Your task to perform on an android device: Open the stopwatch Image 0: 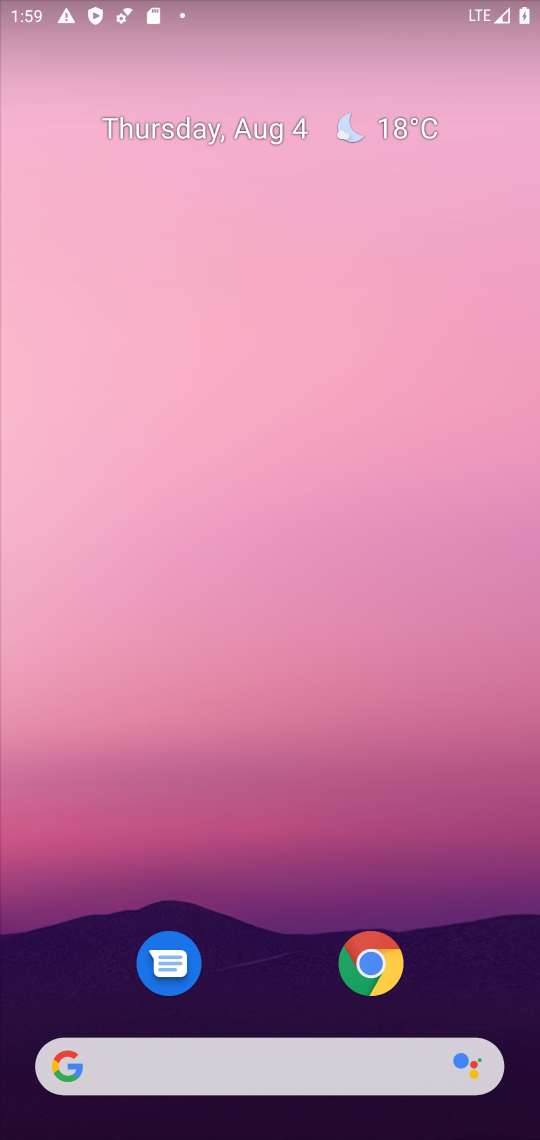
Step 0: drag from (283, 1065) to (296, 61)
Your task to perform on an android device: Open the stopwatch Image 1: 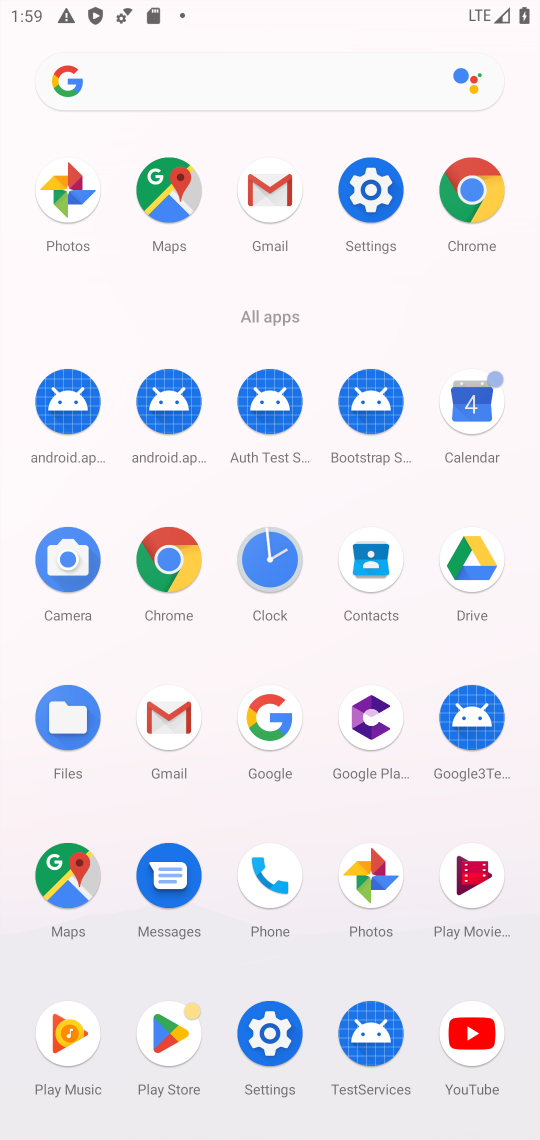
Step 1: click (280, 573)
Your task to perform on an android device: Open the stopwatch Image 2: 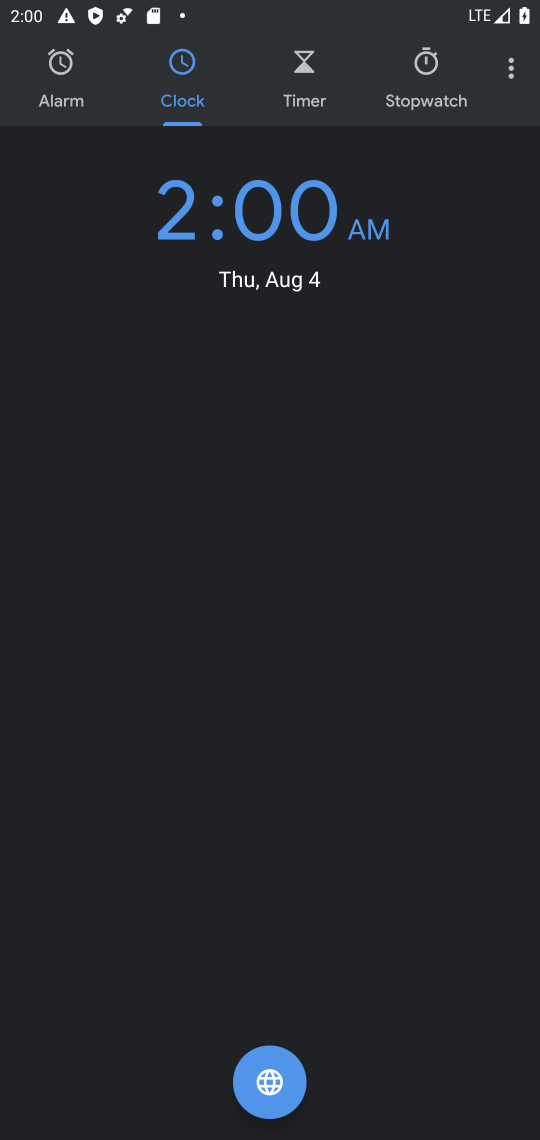
Step 2: click (422, 55)
Your task to perform on an android device: Open the stopwatch Image 3: 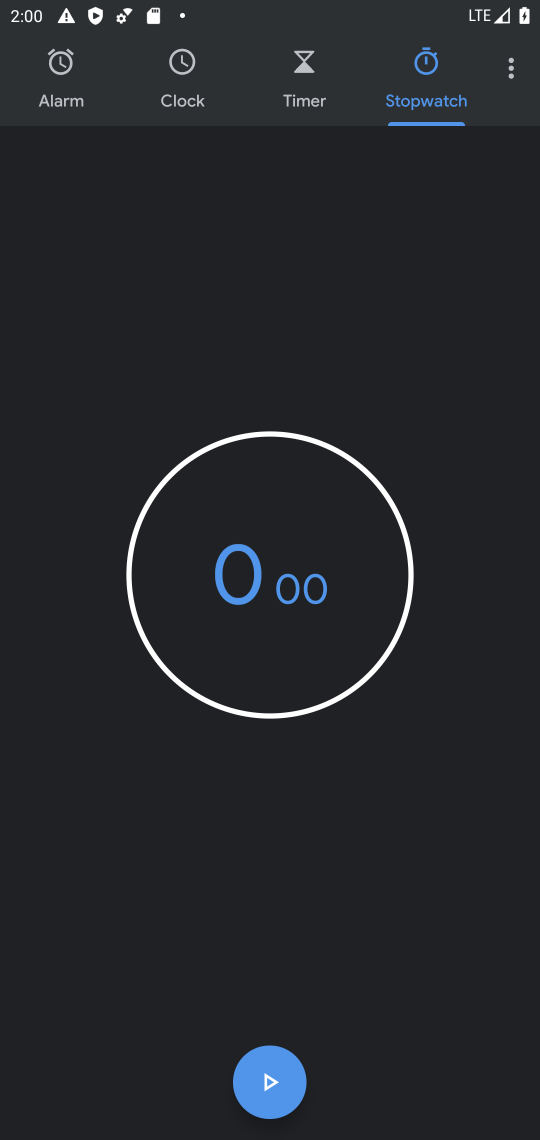
Step 3: task complete